Your task to perform on an android device: Open Google Image 0: 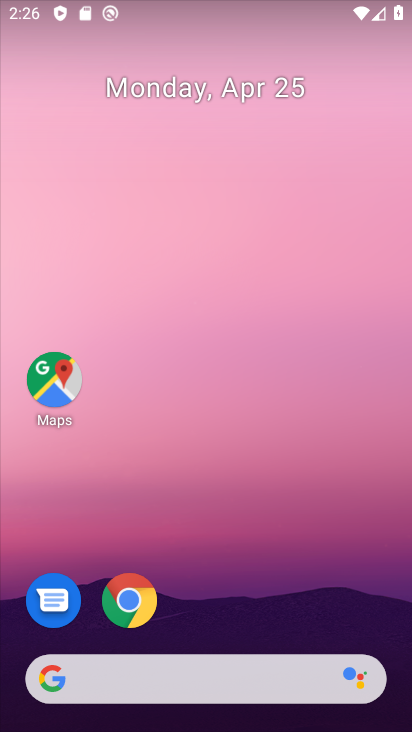
Step 0: drag from (351, 603) to (364, 157)
Your task to perform on an android device: Open Google Image 1: 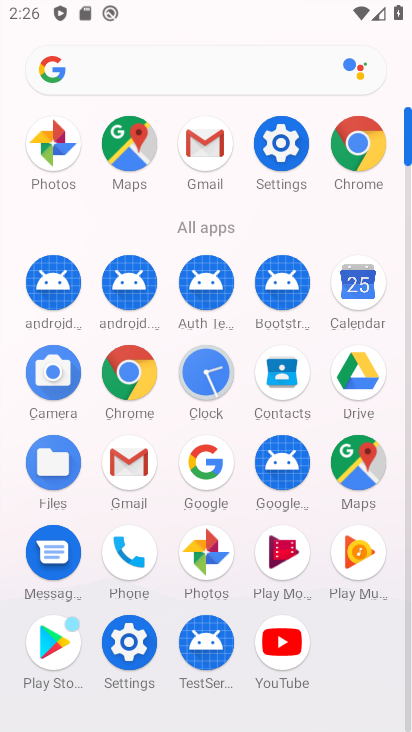
Step 1: click (202, 480)
Your task to perform on an android device: Open Google Image 2: 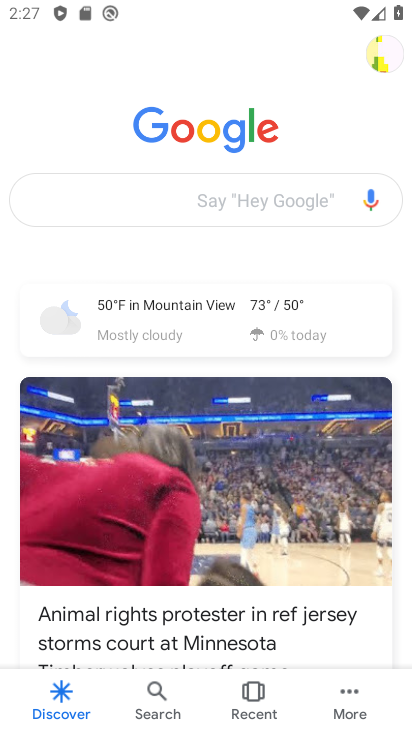
Step 2: click (348, 703)
Your task to perform on an android device: Open Google Image 3: 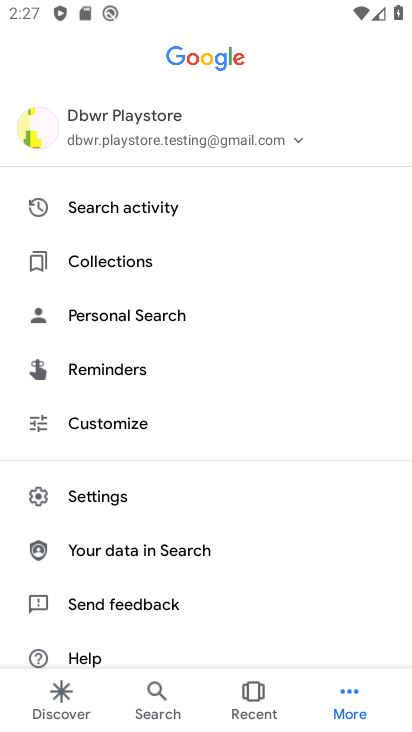
Step 3: task complete